Your task to perform on an android device: Open the calendar app, open the side menu, and click the "Day" option Image 0: 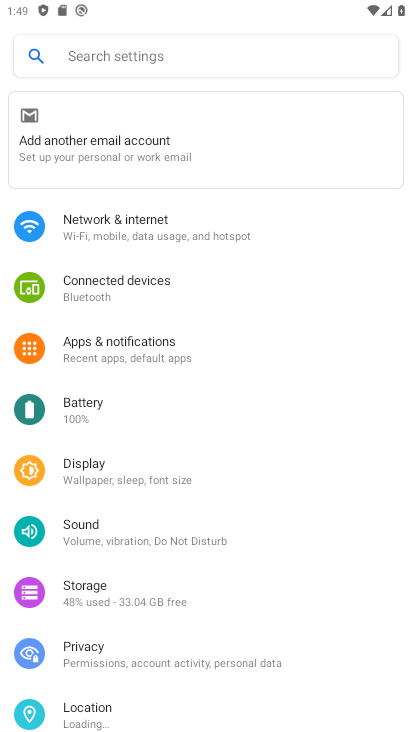
Step 0: press home button
Your task to perform on an android device: Open the calendar app, open the side menu, and click the "Day" option Image 1: 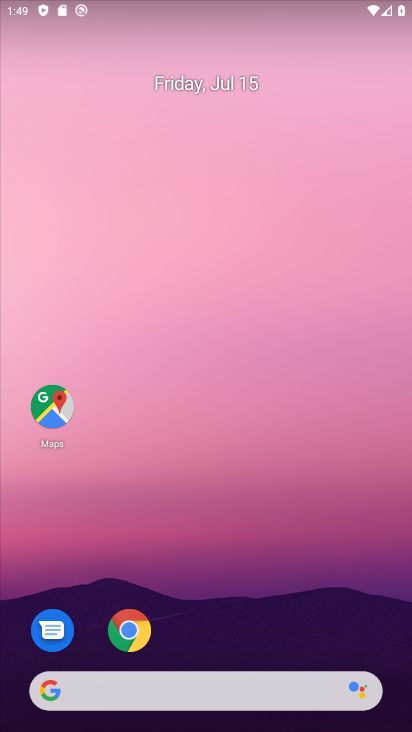
Step 1: drag from (347, 606) to (374, 77)
Your task to perform on an android device: Open the calendar app, open the side menu, and click the "Day" option Image 2: 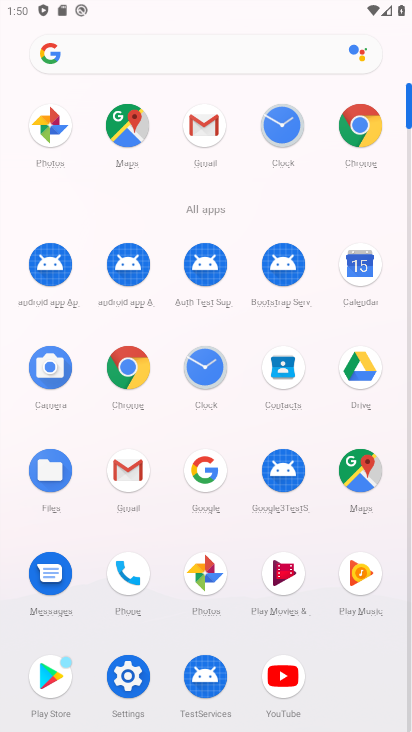
Step 2: click (363, 272)
Your task to perform on an android device: Open the calendar app, open the side menu, and click the "Day" option Image 3: 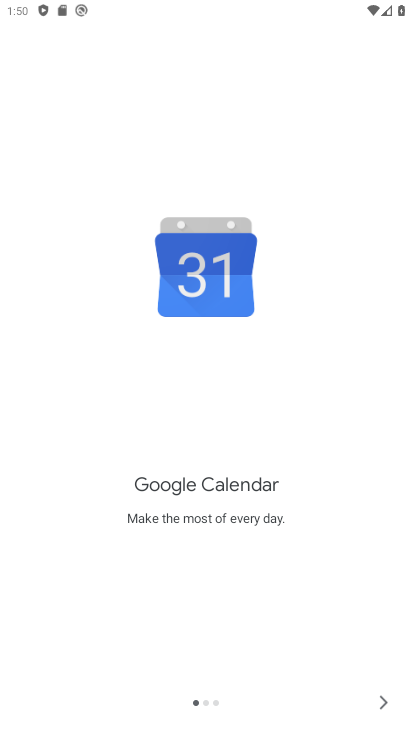
Step 3: click (386, 703)
Your task to perform on an android device: Open the calendar app, open the side menu, and click the "Day" option Image 4: 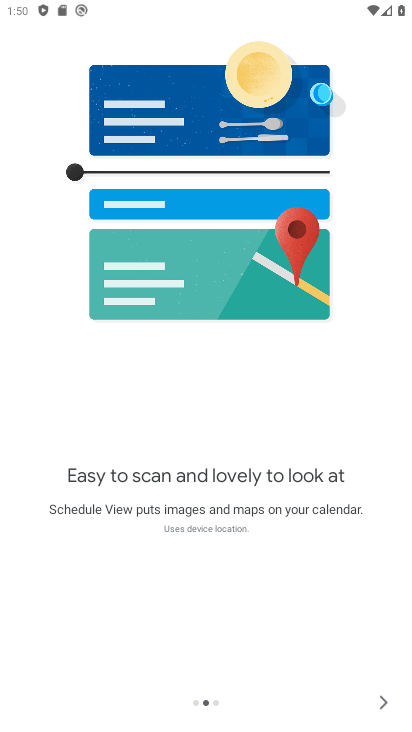
Step 4: click (386, 703)
Your task to perform on an android device: Open the calendar app, open the side menu, and click the "Day" option Image 5: 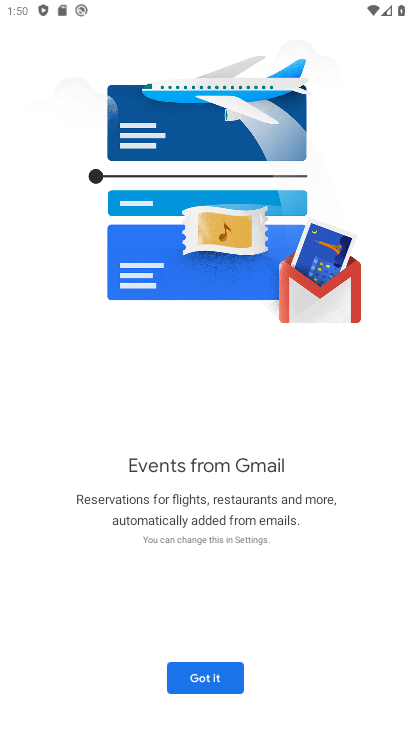
Step 5: click (223, 687)
Your task to perform on an android device: Open the calendar app, open the side menu, and click the "Day" option Image 6: 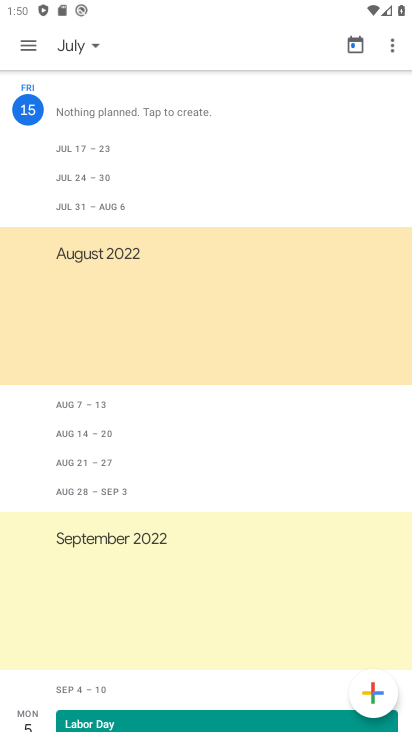
Step 6: click (29, 43)
Your task to perform on an android device: Open the calendar app, open the side menu, and click the "Day" option Image 7: 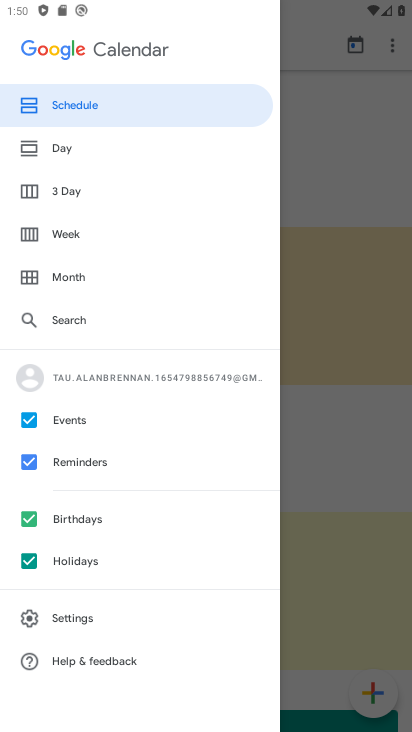
Step 7: click (127, 157)
Your task to perform on an android device: Open the calendar app, open the side menu, and click the "Day" option Image 8: 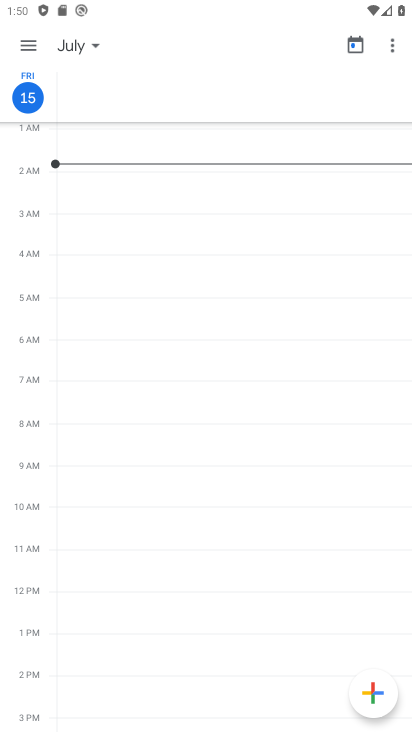
Step 8: task complete